Your task to perform on an android device: Is it going to rain this weekend? Image 0: 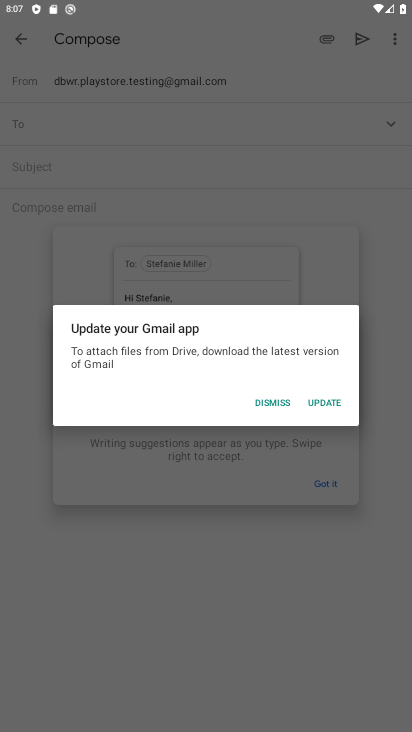
Step 0: press home button
Your task to perform on an android device: Is it going to rain this weekend? Image 1: 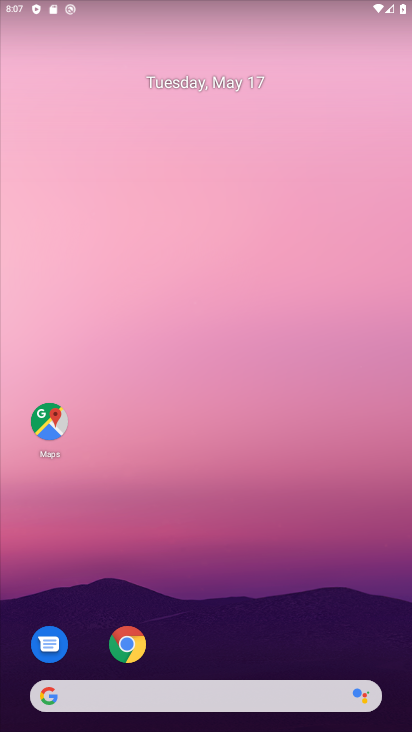
Step 1: drag from (27, 305) to (397, 268)
Your task to perform on an android device: Is it going to rain this weekend? Image 2: 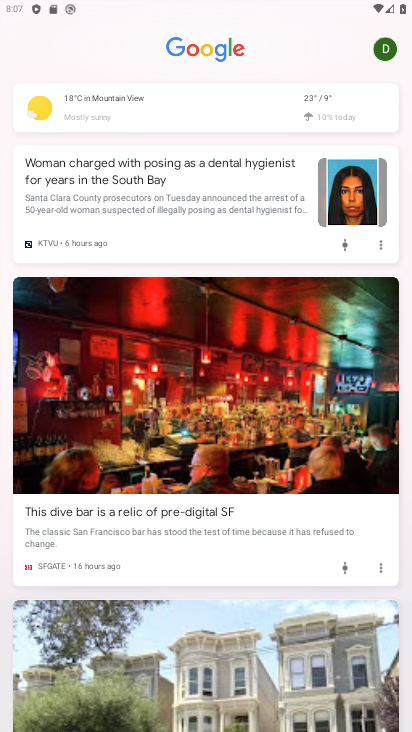
Step 2: click (318, 105)
Your task to perform on an android device: Is it going to rain this weekend? Image 3: 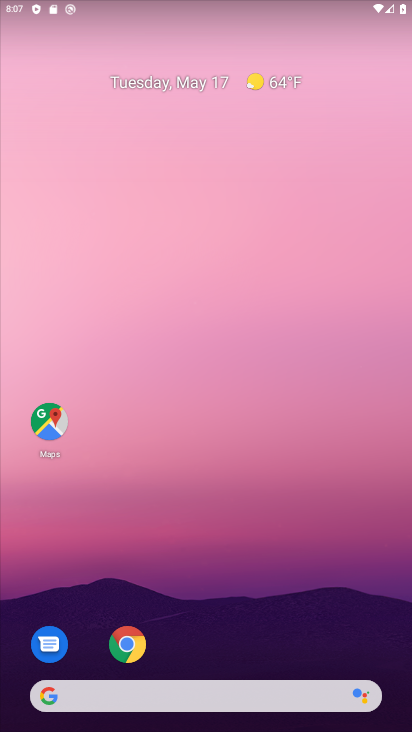
Step 3: click (269, 85)
Your task to perform on an android device: Is it going to rain this weekend? Image 4: 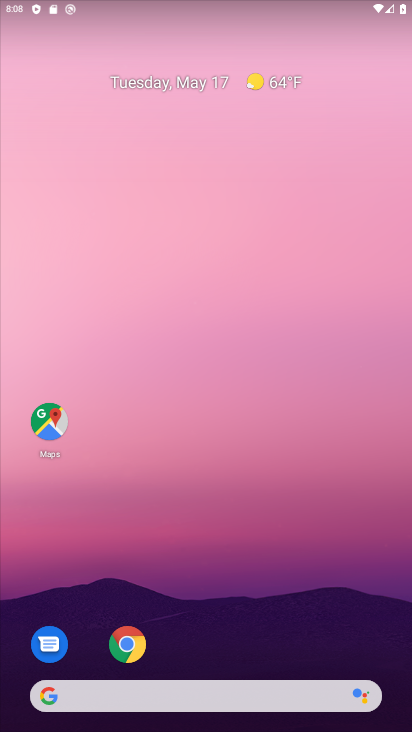
Step 4: click (280, 98)
Your task to perform on an android device: Is it going to rain this weekend? Image 5: 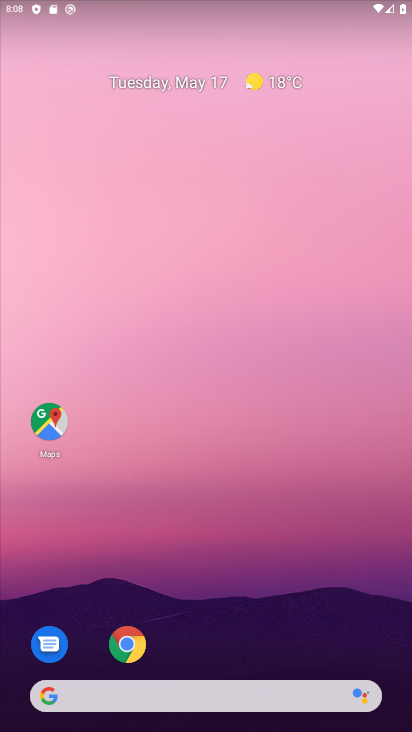
Step 5: click (276, 83)
Your task to perform on an android device: Is it going to rain this weekend? Image 6: 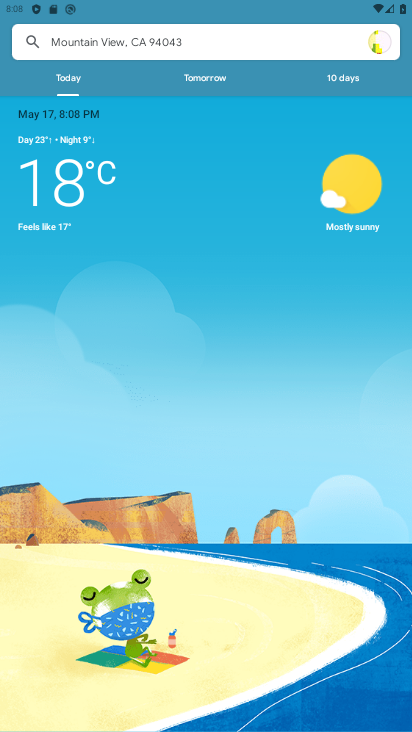
Step 6: click (357, 75)
Your task to perform on an android device: Is it going to rain this weekend? Image 7: 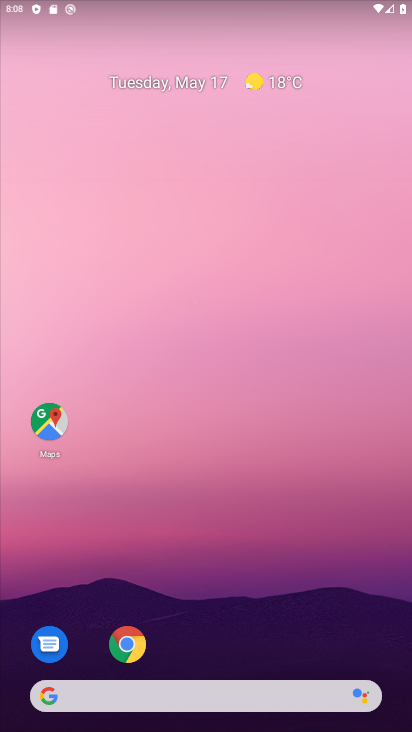
Step 7: click (298, 85)
Your task to perform on an android device: Is it going to rain this weekend? Image 8: 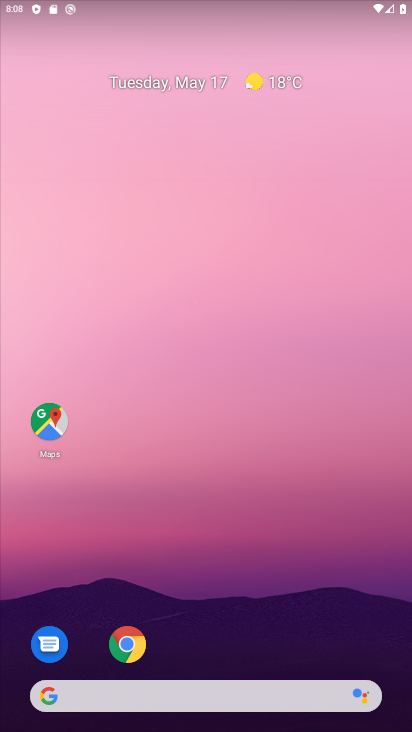
Step 8: click (288, 89)
Your task to perform on an android device: Is it going to rain this weekend? Image 9: 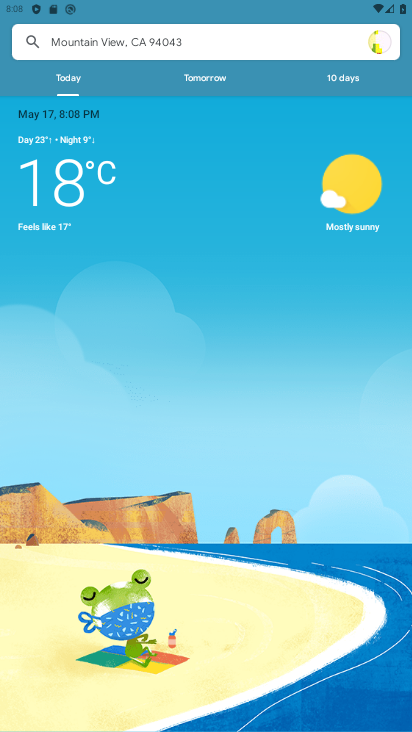
Step 9: click (329, 79)
Your task to perform on an android device: Is it going to rain this weekend? Image 10: 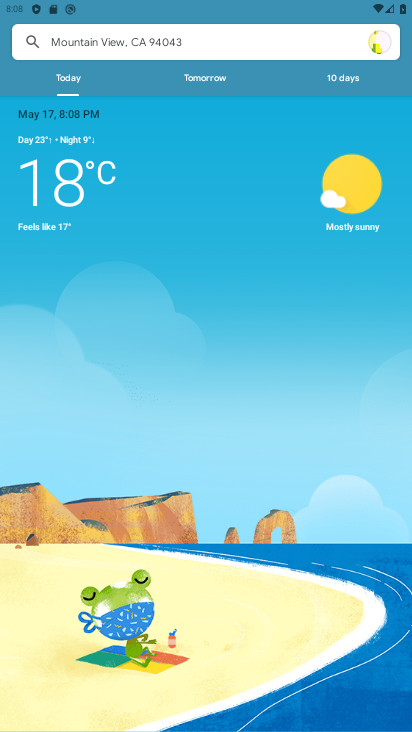
Step 10: click (344, 78)
Your task to perform on an android device: Is it going to rain this weekend? Image 11: 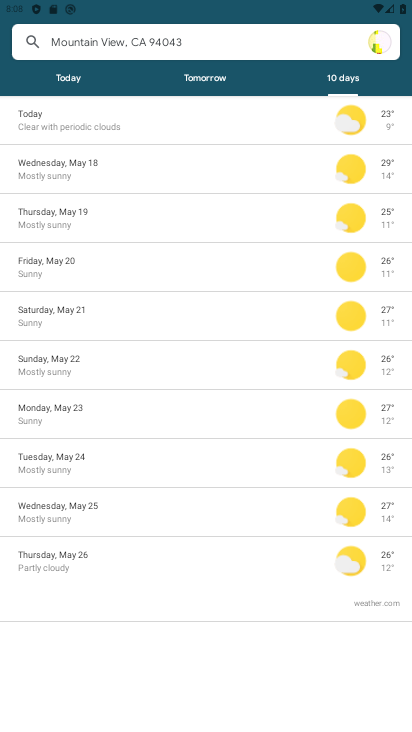
Step 11: task complete